Your task to perform on an android device: set default search engine in the chrome app Image 0: 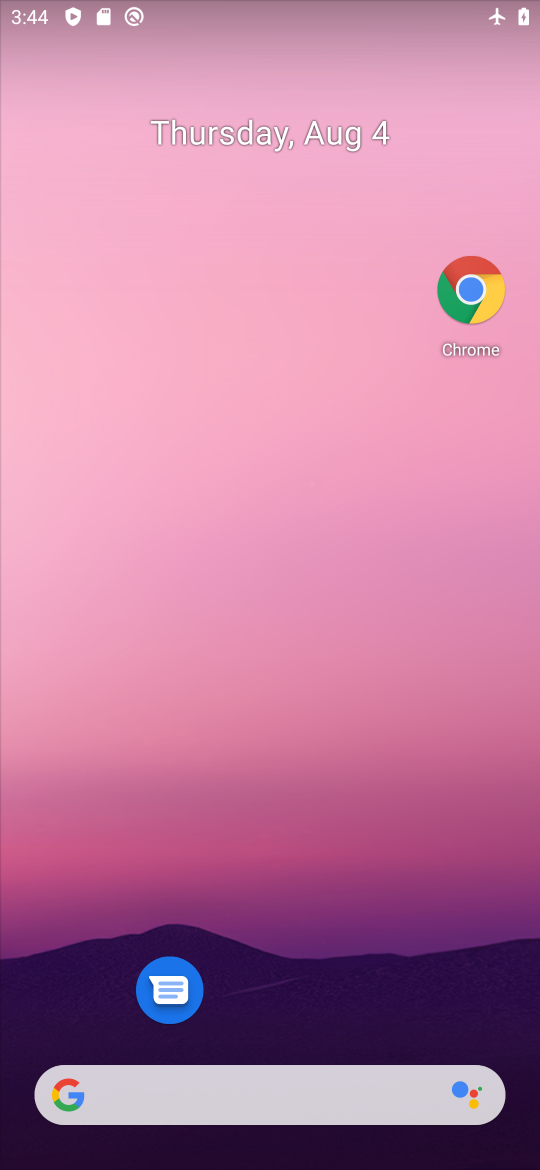
Step 0: drag from (274, 1061) to (406, 285)
Your task to perform on an android device: set default search engine in the chrome app Image 1: 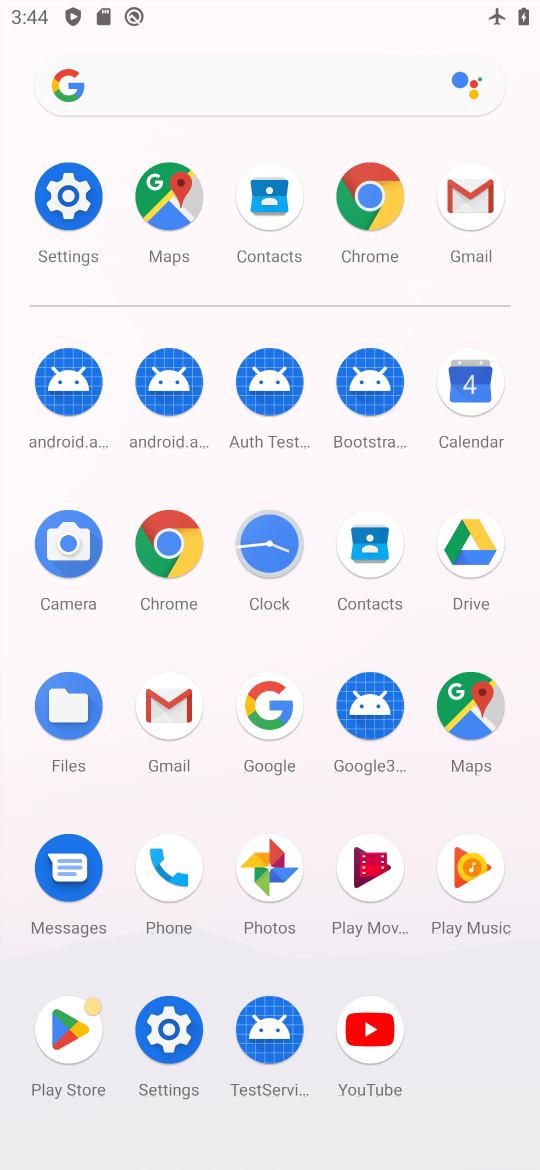
Step 1: click (375, 268)
Your task to perform on an android device: set default search engine in the chrome app Image 2: 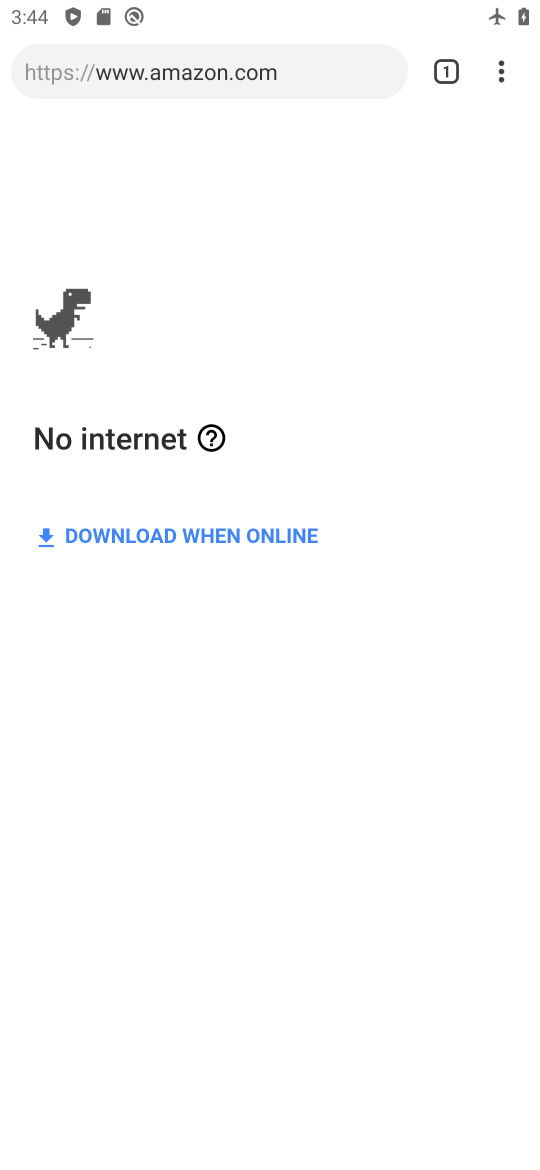
Step 2: click (504, 78)
Your task to perform on an android device: set default search engine in the chrome app Image 3: 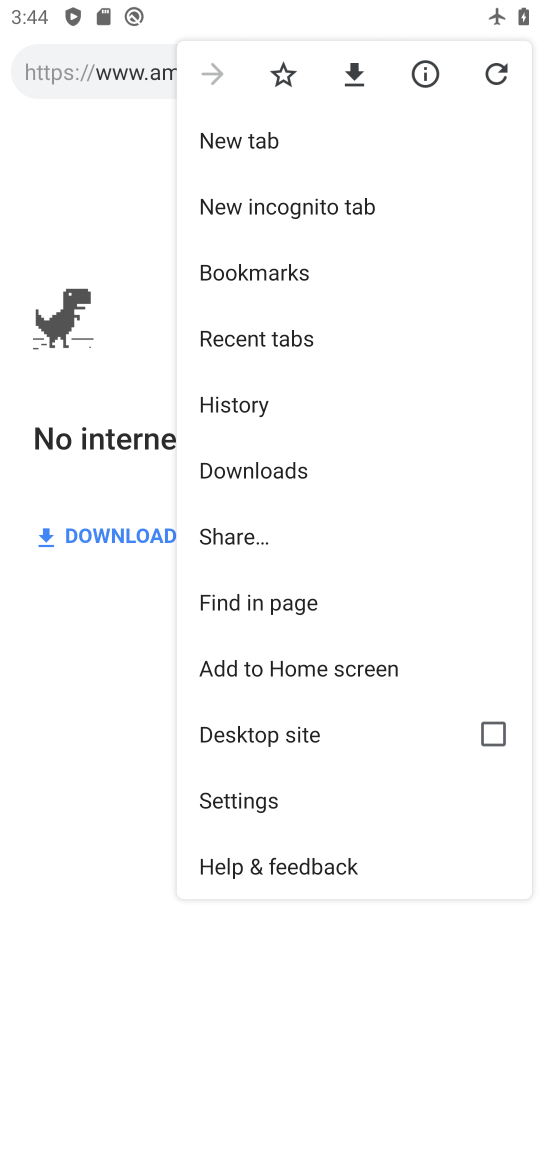
Step 3: click (274, 781)
Your task to perform on an android device: set default search engine in the chrome app Image 4: 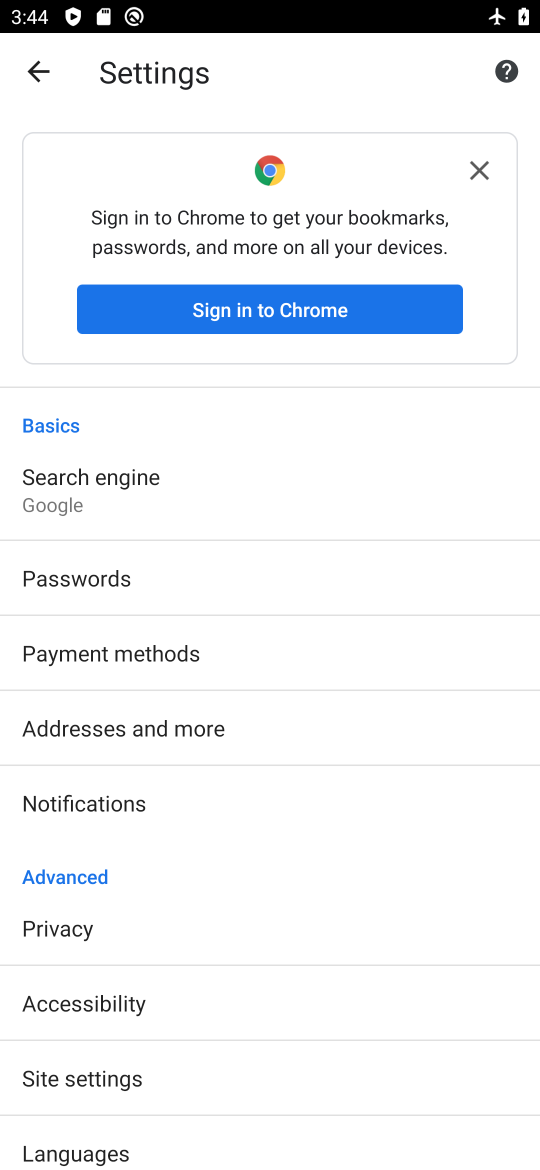
Step 4: click (185, 520)
Your task to perform on an android device: set default search engine in the chrome app Image 5: 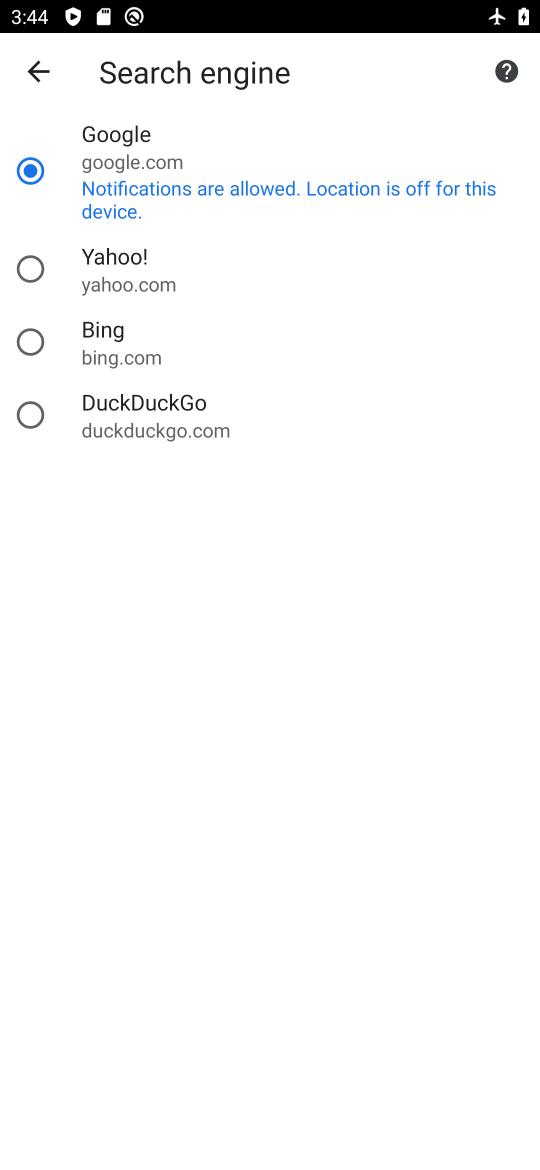
Step 5: click (42, 285)
Your task to perform on an android device: set default search engine in the chrome app Image 6: 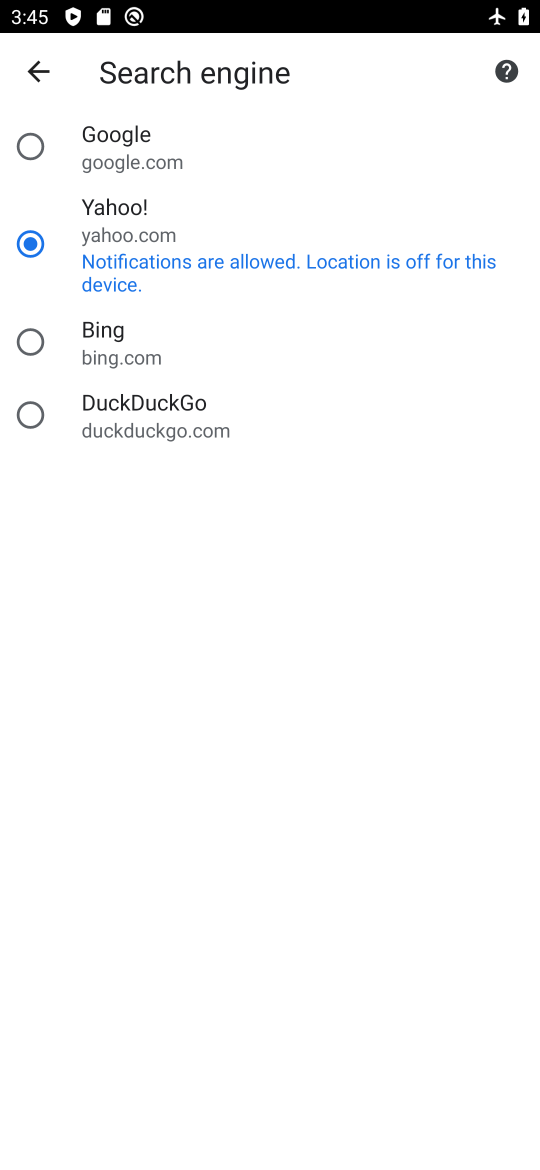
Step 6: task complete